Your task to perform on an android device: Go to settings Image 0: 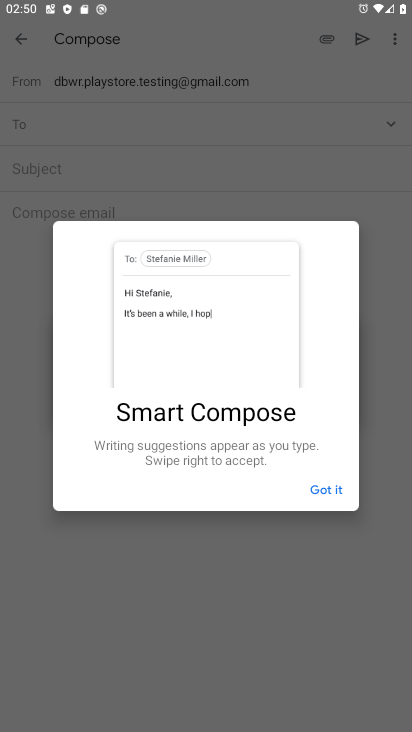
Step 0: press home button
Your task to perform on an android device: Go to settings Image 1: 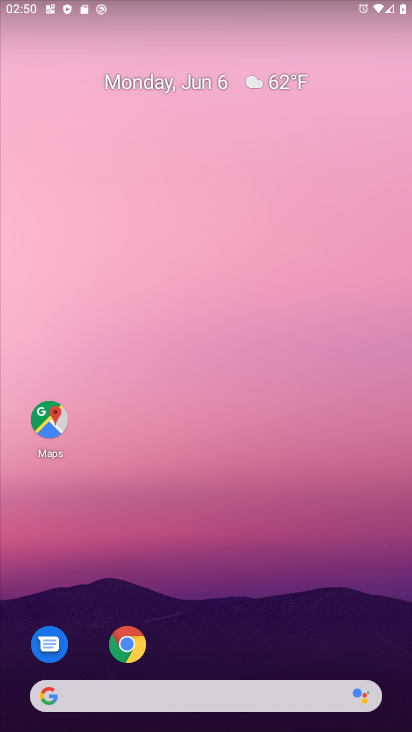
Step 1: drag from (144, 515) to (91, 48)
Your task to perform on an android device: Go to settings Image 2: 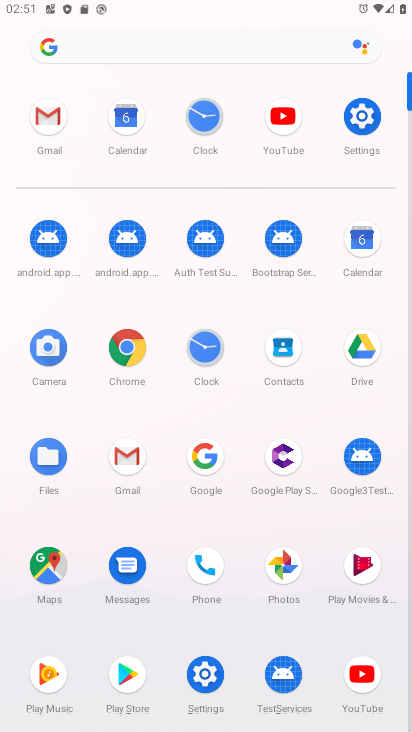
Step 2: click (365, 122)
Your task to perform on an android device: Go to settings Image 3: 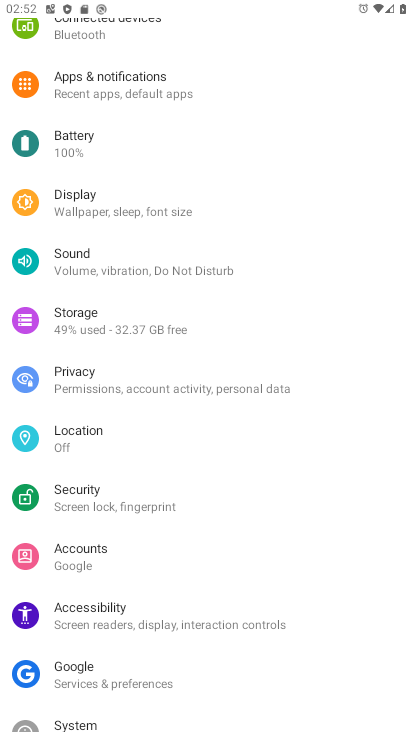
Step 3: task complete